Your task to perform on an android device: Open Android settings Image 0: 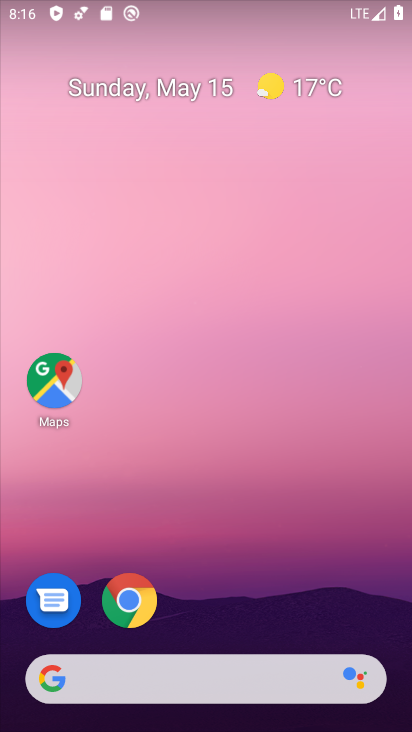
Step 0: drag from (254, 589) to (194, 94)
Your task to perform on an android device: Open Android settings Image 1: 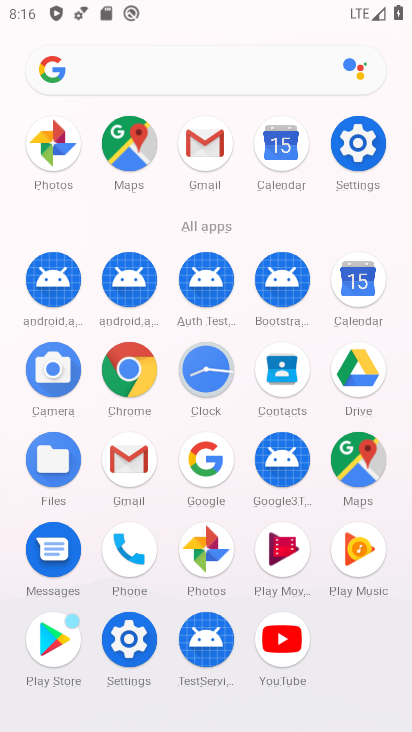
Step 1: click (128, 639)
Your task to perform on an android device: Open Android settings Image 2: 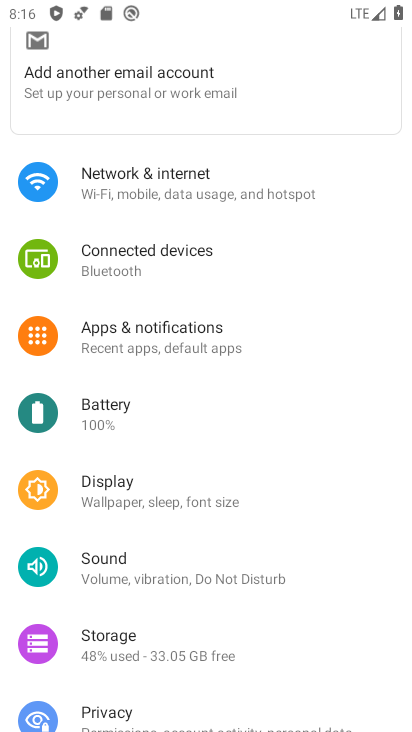
Step 2: task complete